Your task to perform on an android device: turn notification dots on Image 0: 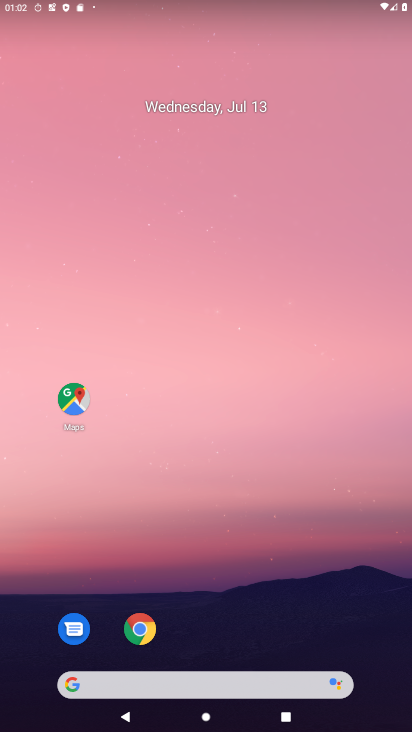
Step 0: drag from (194, 634) to (194, 308)
Your task to perform on an android device: turn notification dots on Image 1: 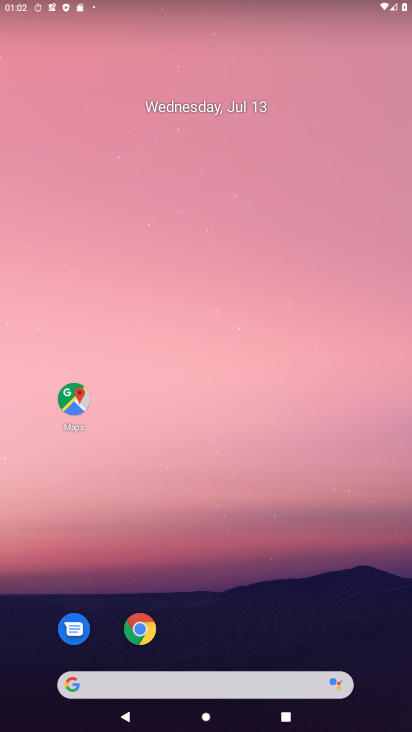
Step 1: drag from (200, 617) to (205, 236)
Your task to perform on an android device: turn notification dots on Image 2: 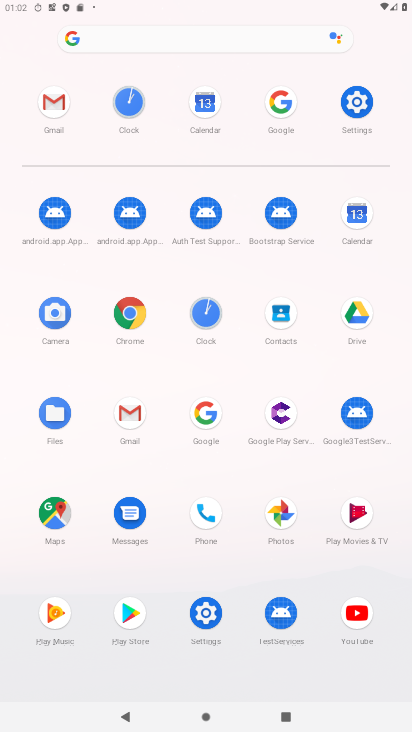
Step 2: click (351, 122)
Your task to perform on an android device: turn notification dots on Image 3: 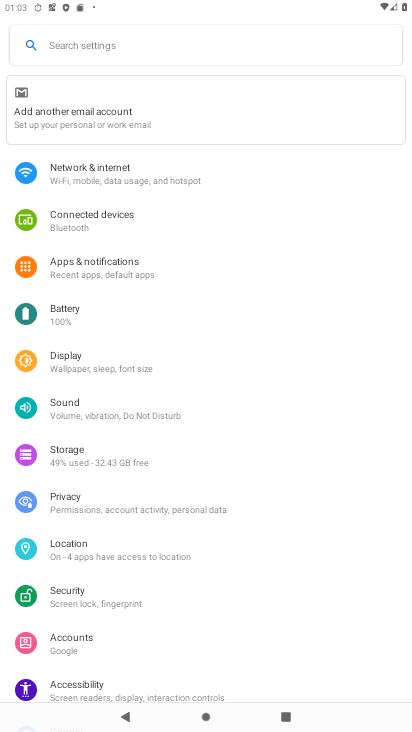
Step 3: click (159, 266)
Your task to perform on an android device: turn notification dots on Image 4: 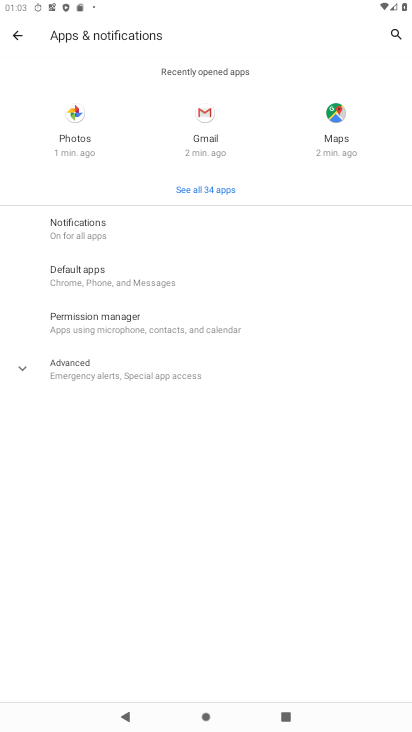
Step 4: click (121, 233)
Your task to perform on an android device: turn notification dots on Image 5: 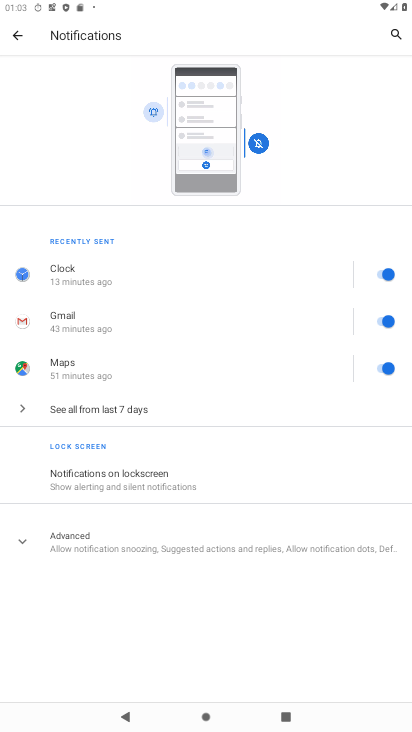
Step 5: click (246, 545)
Your task to perform on an android device: turn notification dots on Image 6: 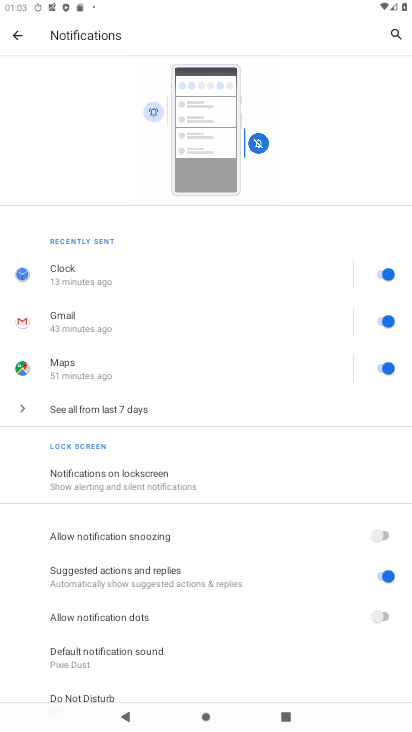
Step 6: click (384, 610)
Your task to perform on an android device: turn notification dots on Image 7: 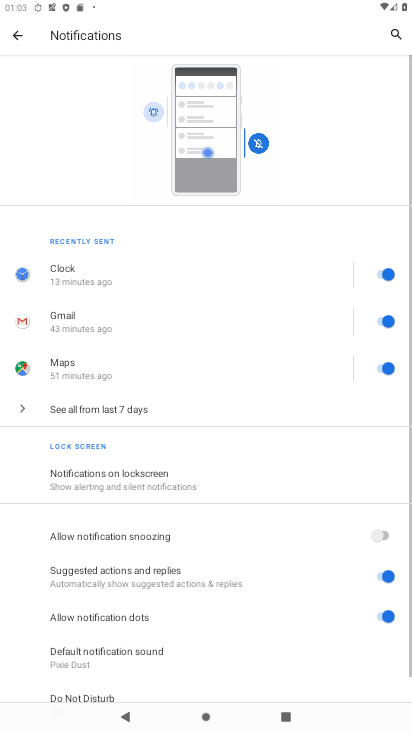
Step 7: task complete